Your task to perform on an android device: Open the stopwatch Image 0: 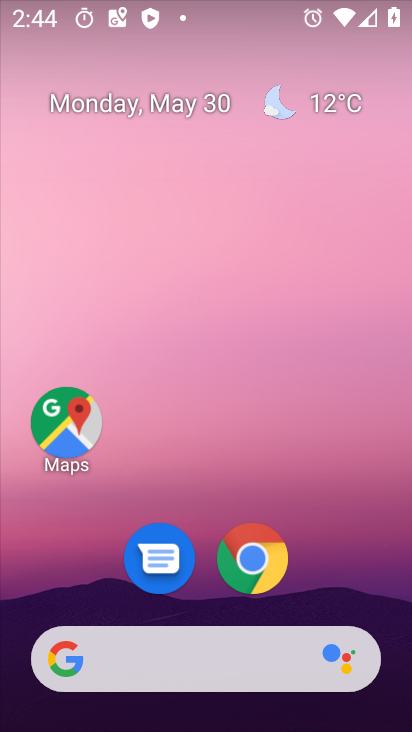
Step 0: drag from (204, 519) to (256, 6)
Your task to perform on an android device: Open the stopwatch Image 1: 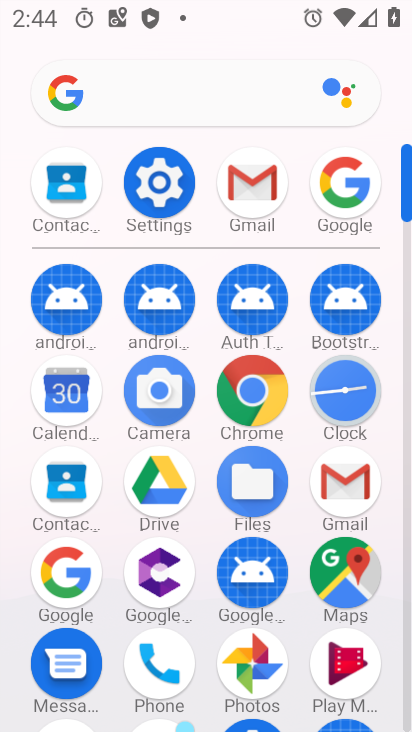
Step 1: click (354, 392)
Your task to perform on an android device: Open the stopwatch Image 2: 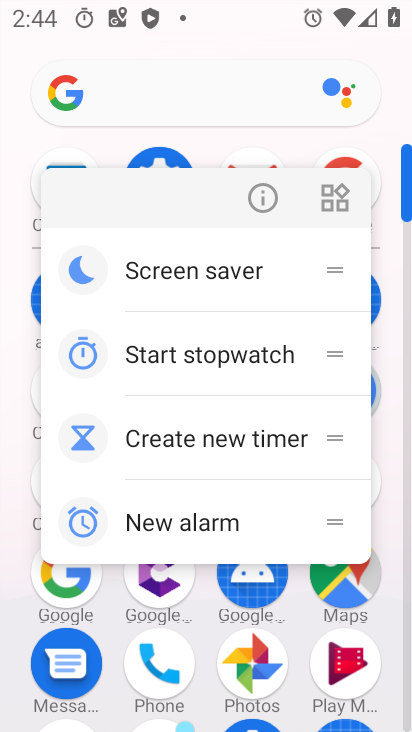
Step 2: click (394, 522)
Your task to perform on an android device: Open the stopwatch Image 3: 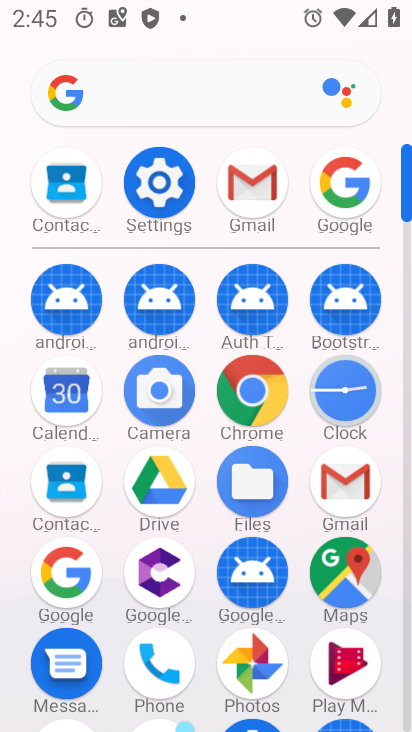
Step 3: click (348, 400)
Your task to perform on an android device: Open the stopwatch Image 4: 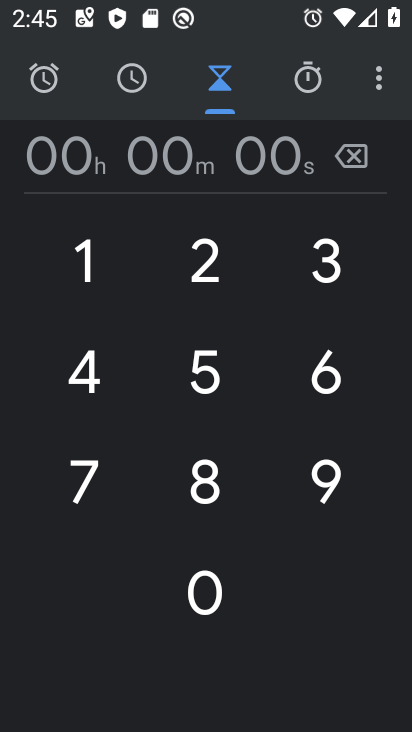
Step 4: click (306, 55)
Your task to perform on an android device: Open the stopwatch Image 5: 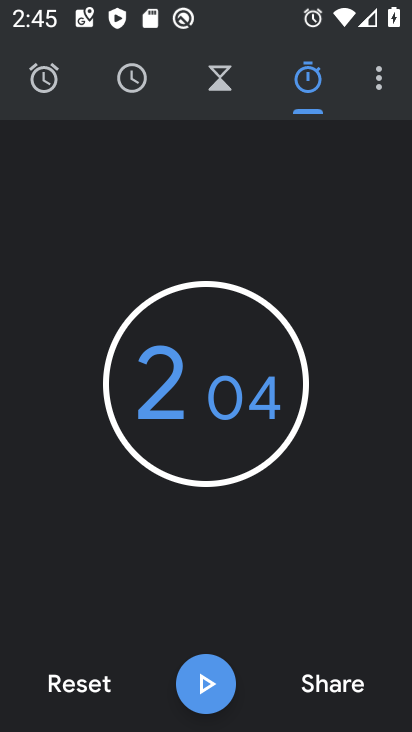
Step 5: task complete